Your task to perform on an android device: all mails in gmail Image 0: 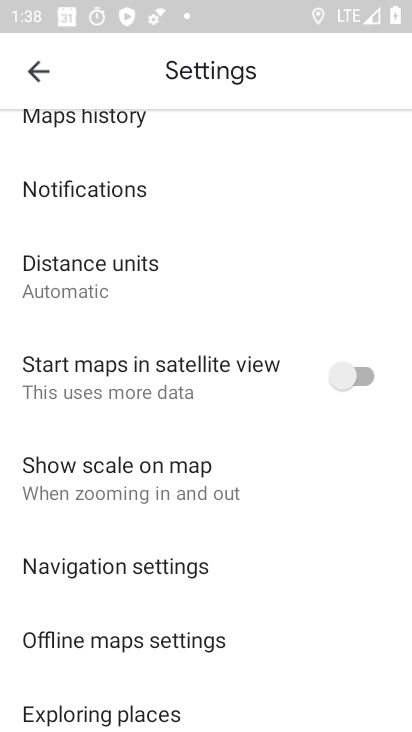
Step 0: press back button
Your task to perform on an android device: all mails in gmail Image 1: 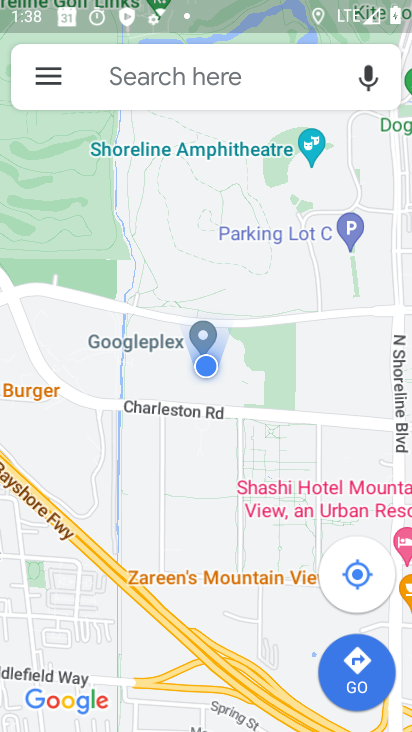
Step 1: press home button
Your task to perform on an android device: all mails in gmail Image 2: 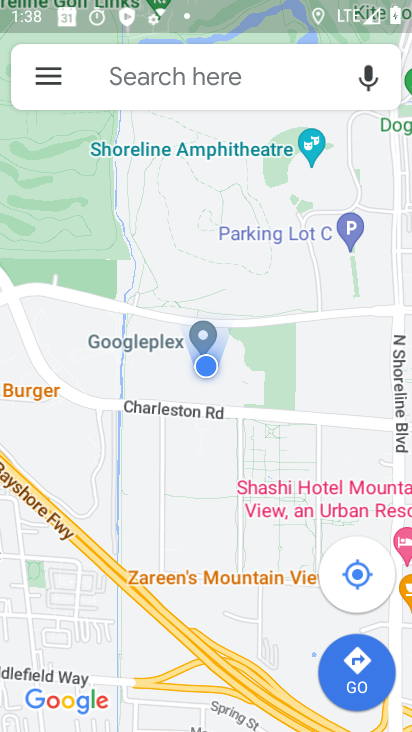
Step 2: press home button
Your task to perform on an android device: all mails in gmail Image 3: 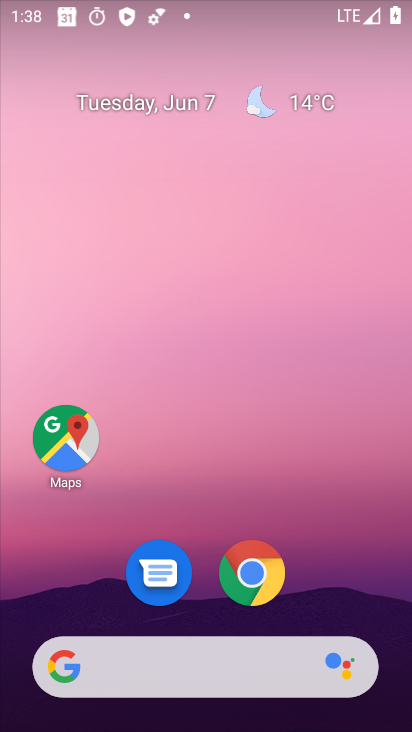
Step 3: drag from (219, 606) to (283, 196)
Your task to perform on an android device: all mails in gmail Image 4: 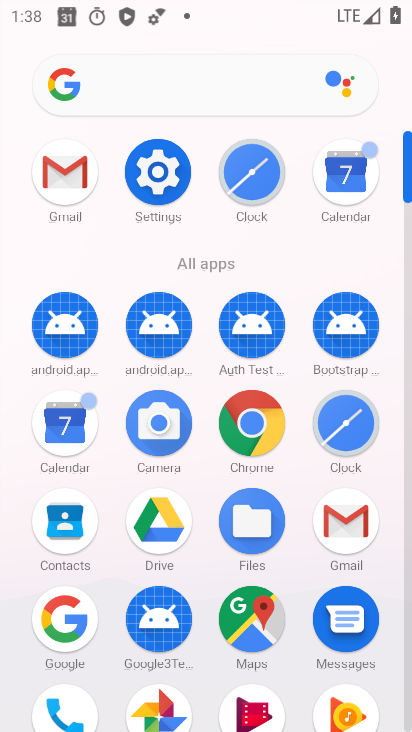
Step 4: click (343, 512)
Your task to perform on an android device: all mails in gmail Image 5: 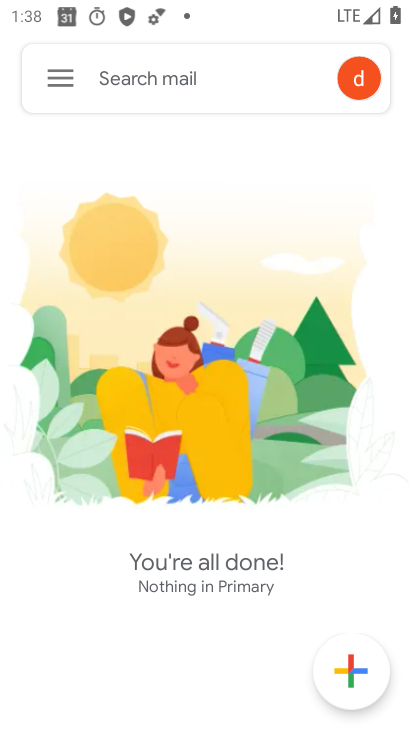
Step 5: click (55, 71)
Your task to perform on an android device: all mails in gmail Image 6: 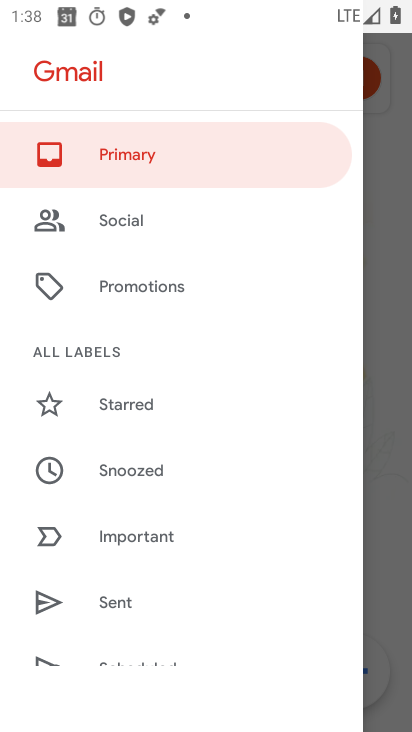
Step 6: drag from (156, 559) to (183, 149)
Your task to perform on an android device: all mails in gmail Image 7: 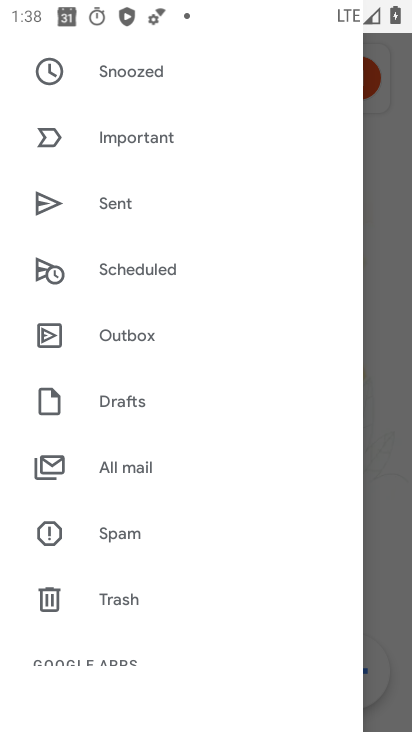
Step 7: click (156, 463)
Your task to perform on an android device: all mails in gmail Image 8: 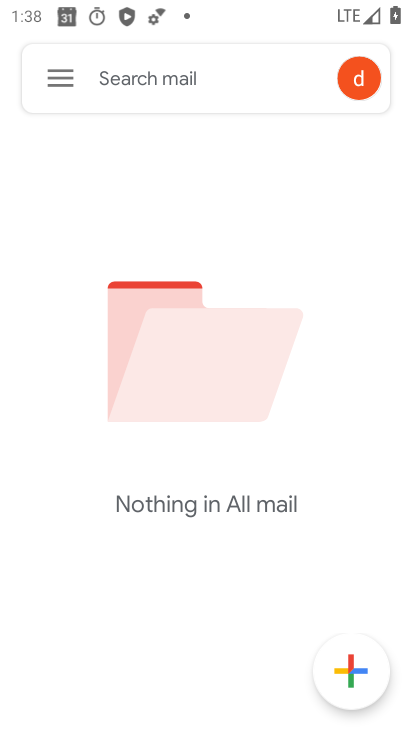
Step 8: task complete